Your task to perform on an android device: turn on airplane mode Image 0: 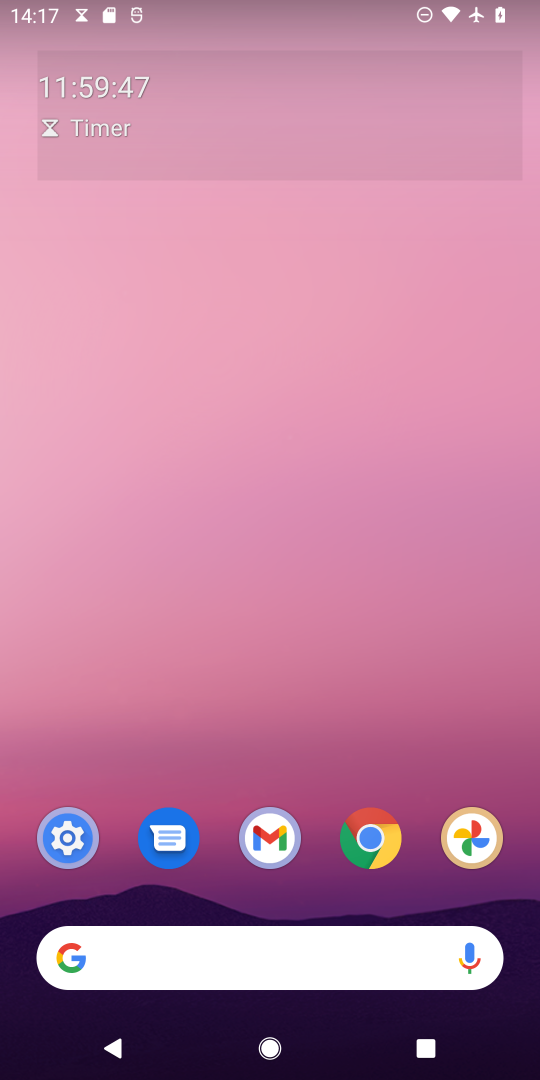
Step 0: press home button
Your task to perform on an android device: turn on airplane mode Image 1: 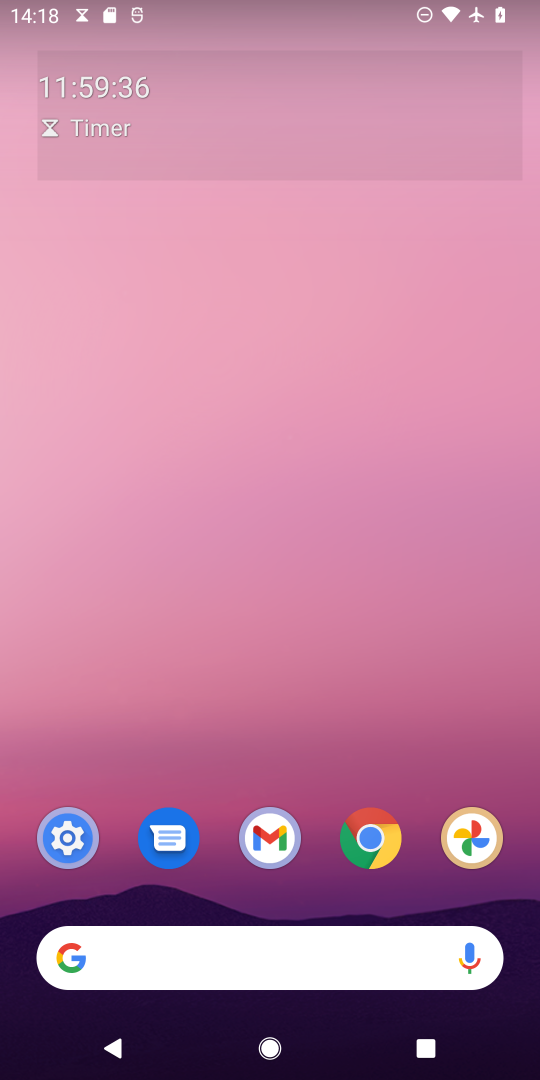
Step 1: drag from (327, 854) to (243, 172)
Your task to perform on an android device: turn on airplane mode Image 2: 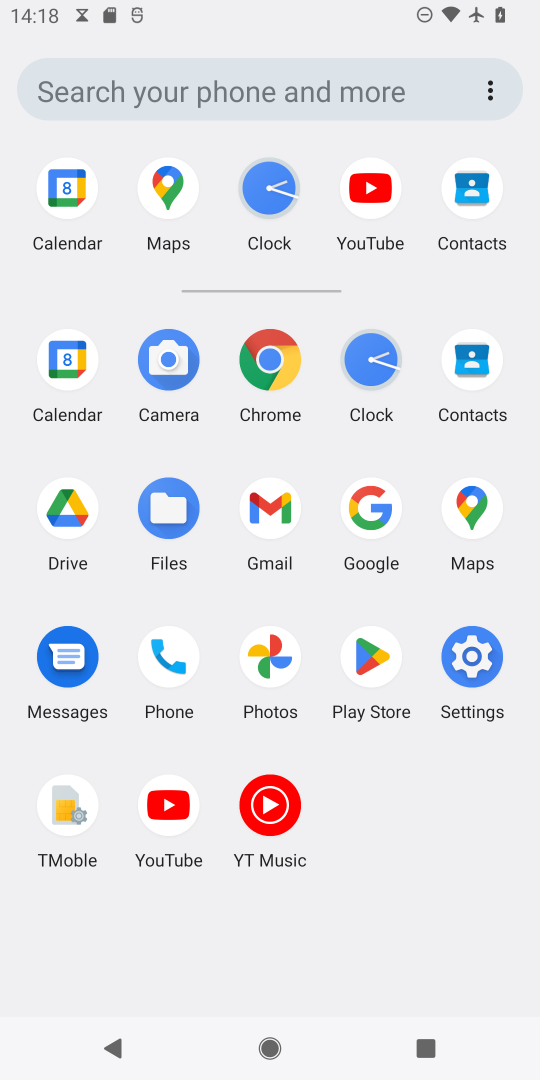
Step 2: click (475, 664)
Your task to perform on an android device: turn on airplane mode Image 3: 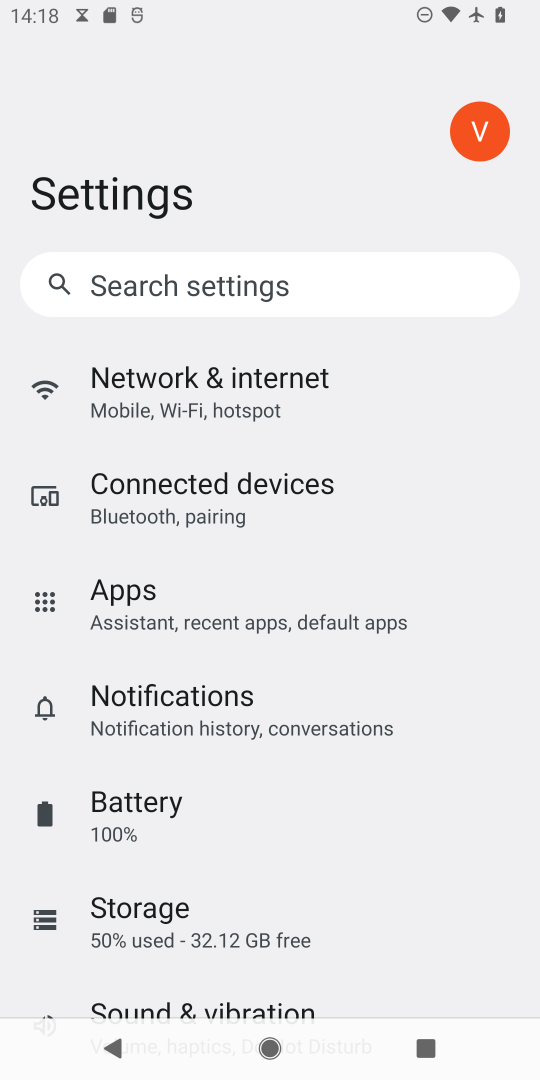
Step 3: click (174, 403)
Your task to perform on an android device: turn on airplane mode Image 4: 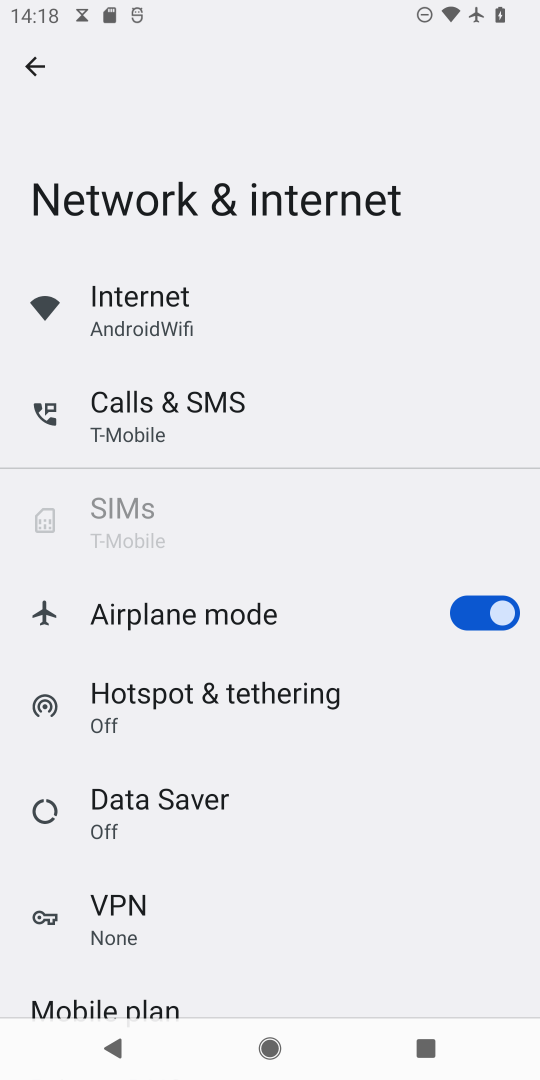
Step 4: task complete